Your task to perform on an android device: Open display settings Image 0: 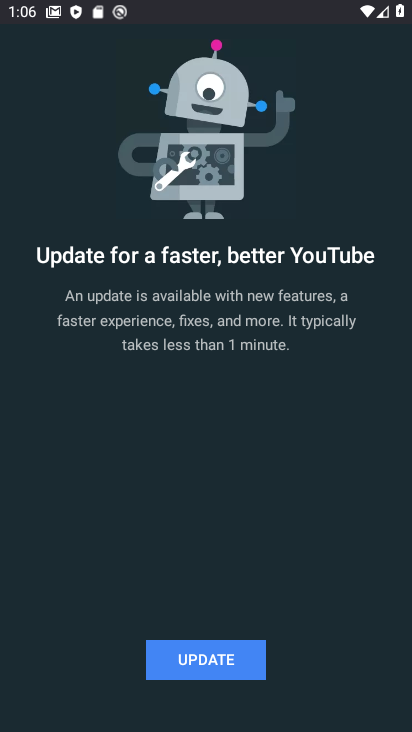
Step 0: press home button
Your task to perform on an android device: Open display settings Image 1: 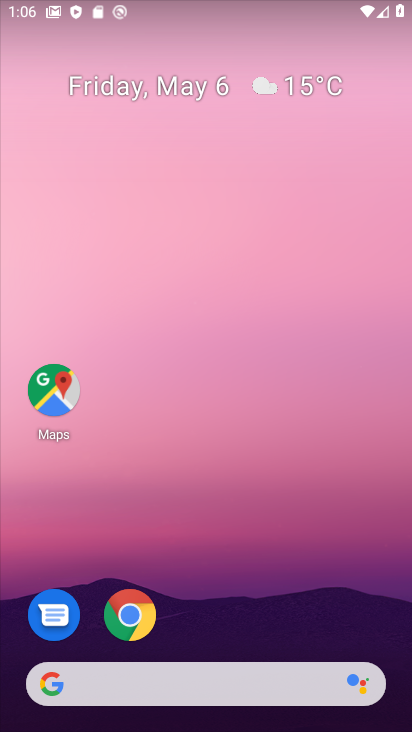
Step 1: drag from (259, 537) to (270, 19)
Your task to perform on an android device: Open display settings Image 2: 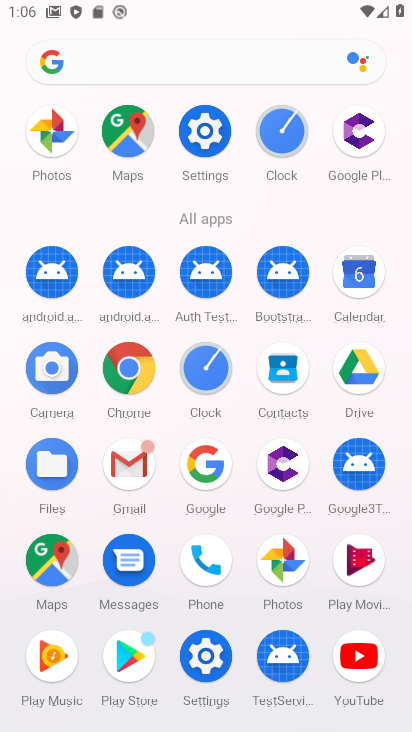
Step 2: click (203, 125)
Your task to perform on an android device: Open display settings Image 3: 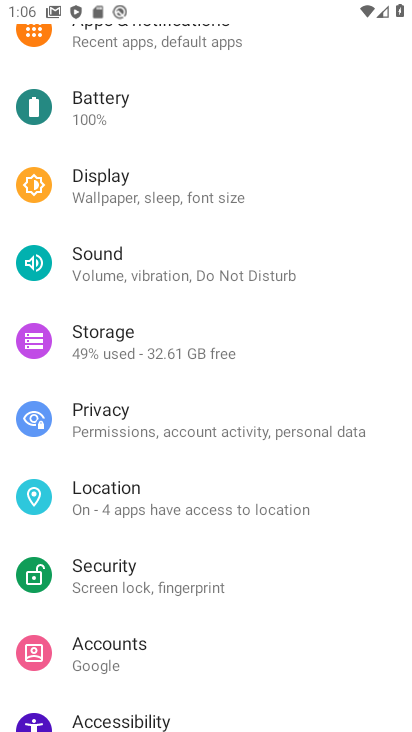
Step 3: click (175, 189)
Your task to perform on an android device: Open display settings Image 4: 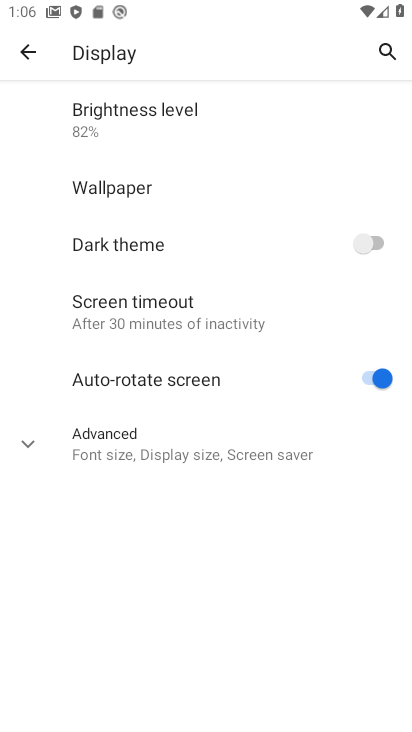
Step 4: task complete